Your task to perform on an android device: turn off sleep mode Image 0: 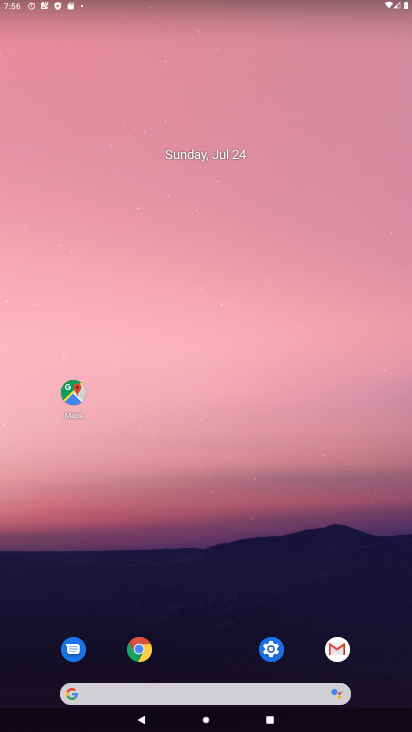
Step 0: click (279, 648)
Your task to perform on an android device: turn off sleep mode Image 1: 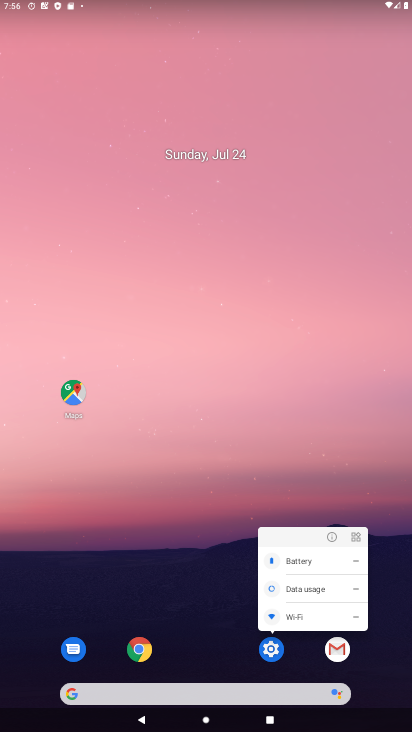
Step 1: click (270, 666)
Your task to perform on an android device: turn off sleep mode Image 2: 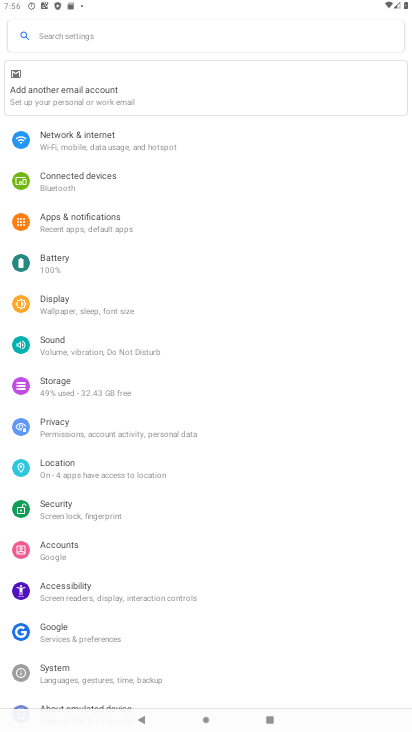
Step 2: click (61, 38)
Your task to perform on an android device: turn off sleep mode Image 3: 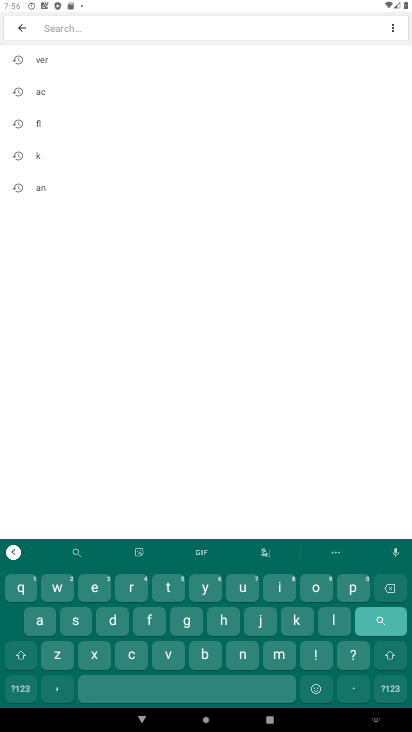
Step 3: click (71, 626)
Your task to perform on an android device: turn off sleep mode Image 4: 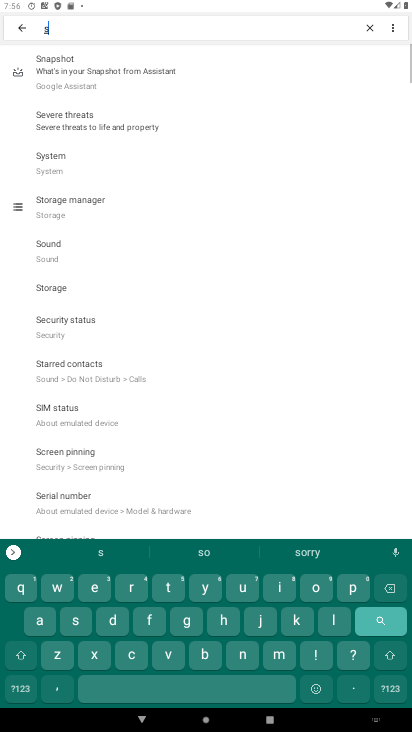
Step 4: click (336, 629)
Your task to perform on an android device: turn off sleep mode Image 5: 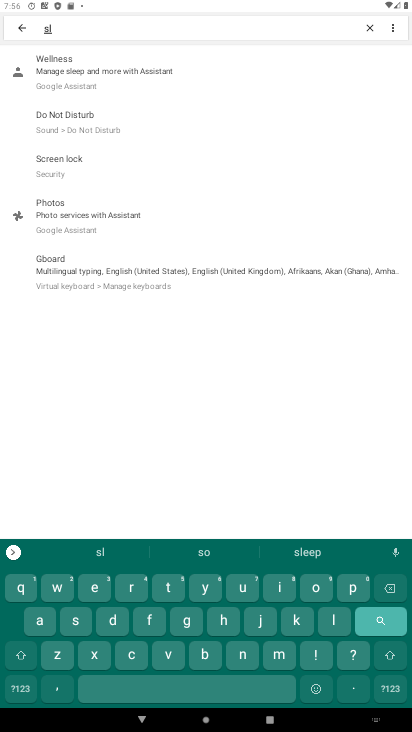
Step 5: click (85, 131)
Your task to perform on an android device: turn off sleep mode Image 6: 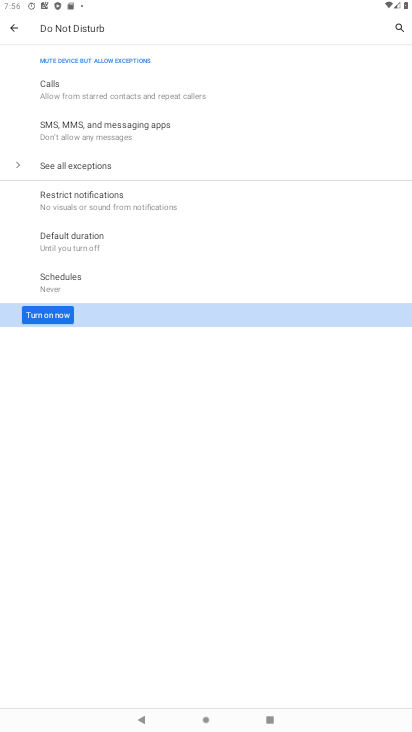
Step 6: click (50, 304)
Your task to perform on an android device: turn off sleep mode Image 7: 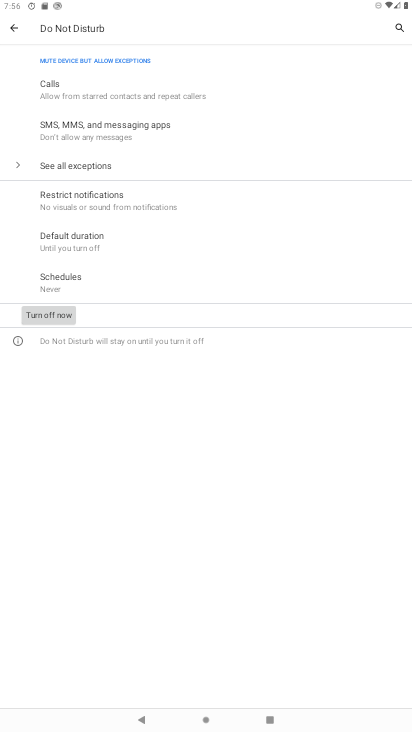
Step 7: click (48, 322)
Your task to perform on an android device: turn off sleep mode Image 8: 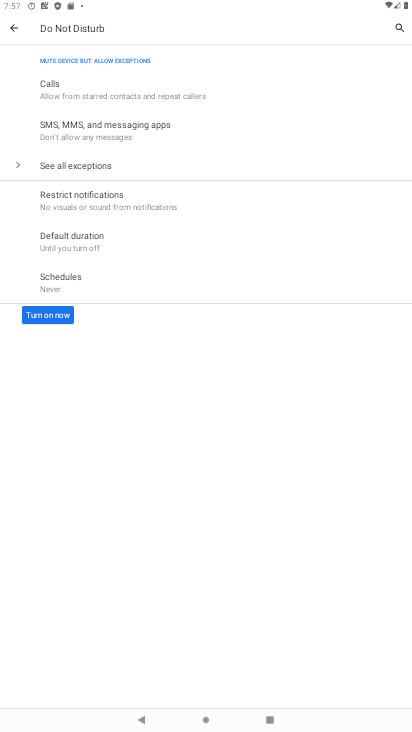
Step 8: task complete